Your task to perform on an android device: Show the shopping cart on newegg.com. Add "razer huntsman" to the cart on newegg.com Image 0: 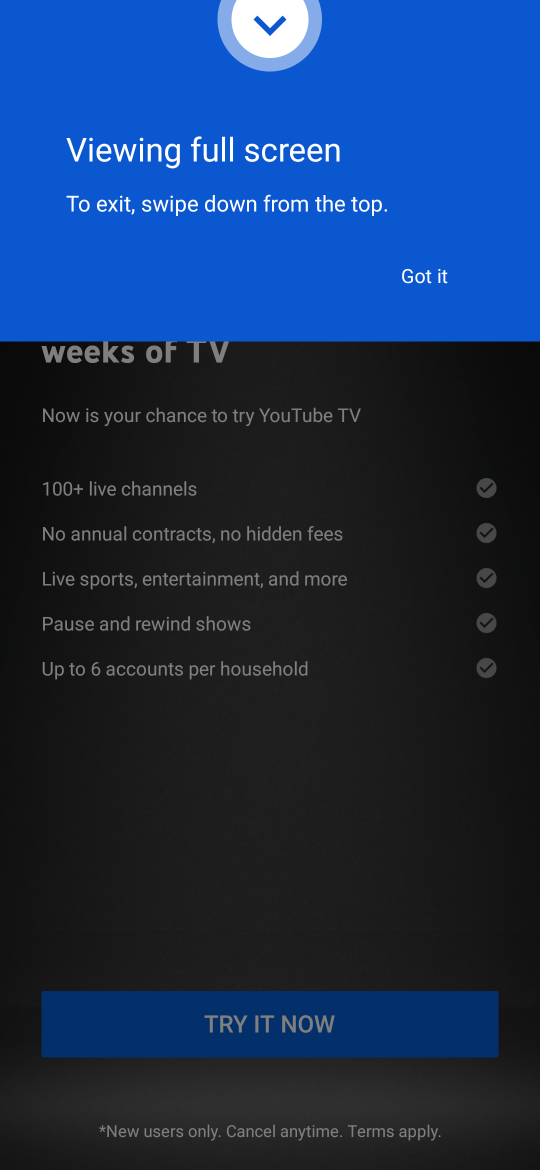
Step 0: click (427, 269)
Your task to perform on an android device: Show the shopping cart on newegg.com. Add "razer huntsman" to the cart on newegg.com Image 1: 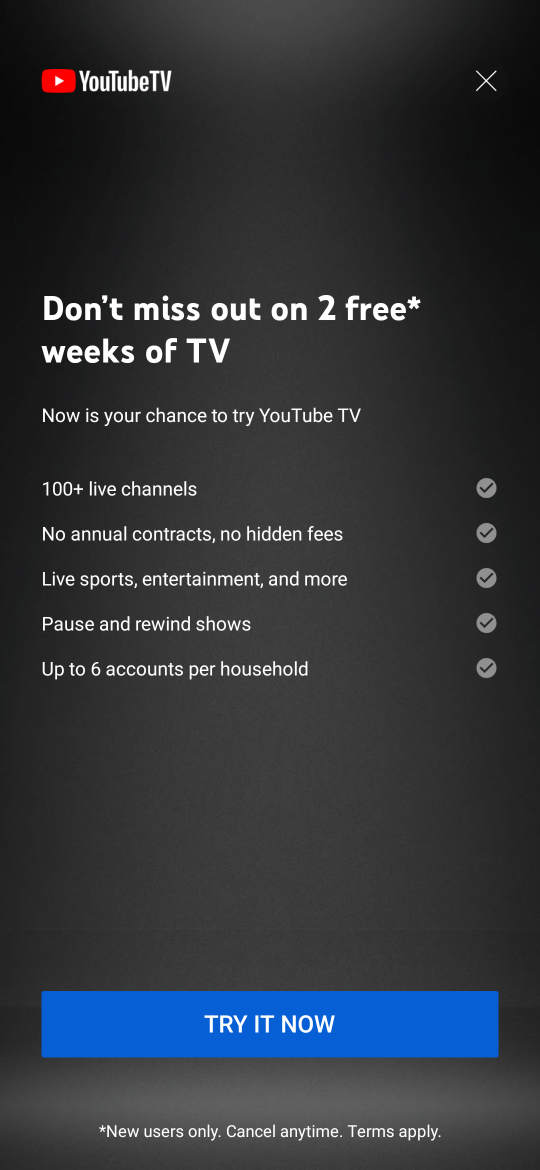
Step 1: click (488, 79)
Your task to perform on an android device: Show the shopping cart on newegg.com. Add "razer huntsman" to the cart on newegg.com Image 2: 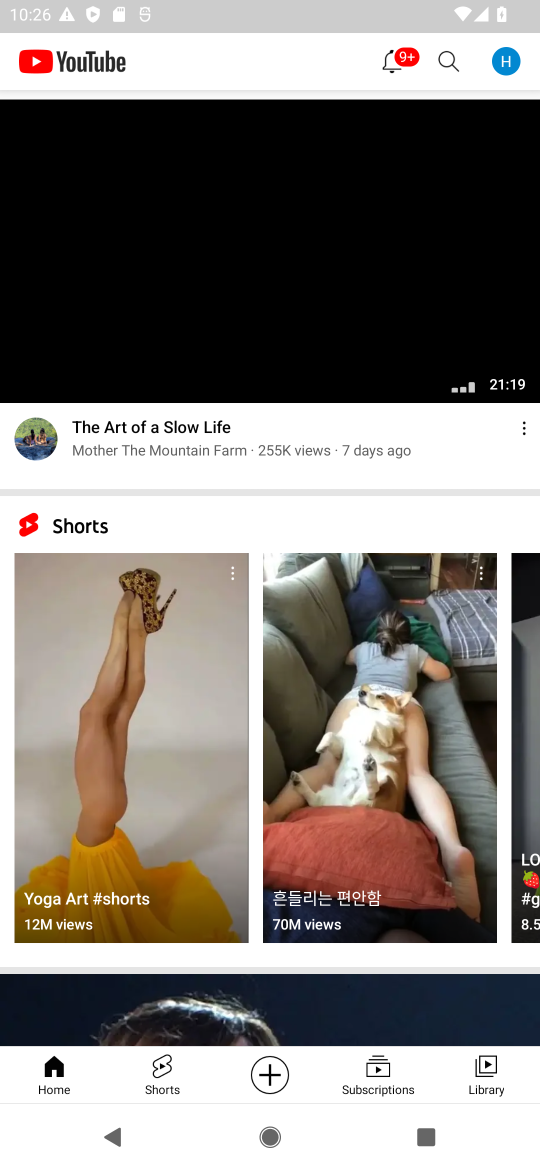
Step 2: press home button
Your task to perform on an android device: Show the shopping cart on newegg.com. Add "razer huntsman" to the cart on newegg.com Image 3: 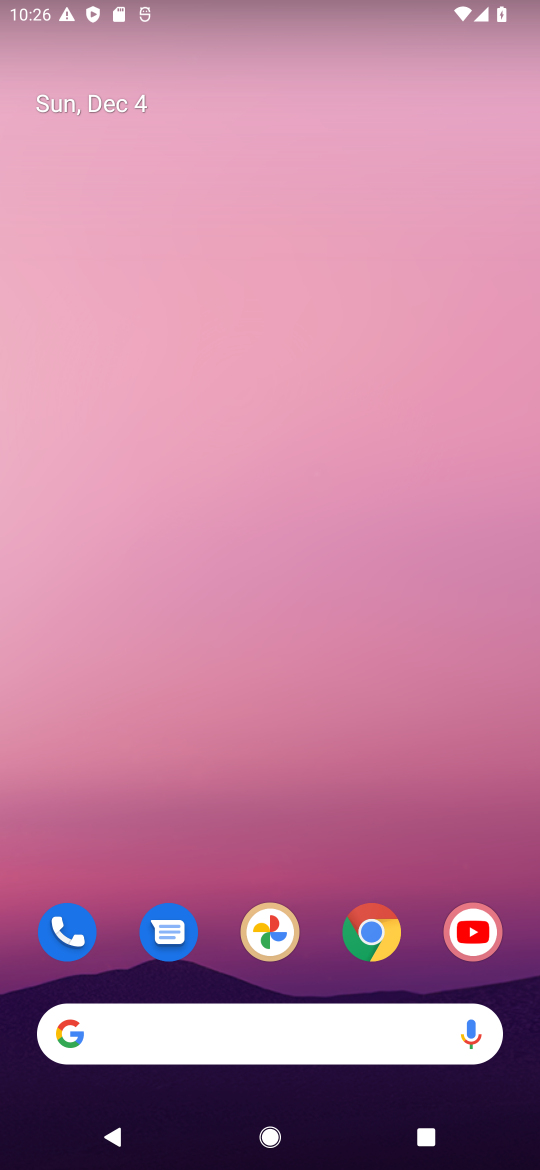
Step 3: click (367, 932)
Your task to perform on an android device: Show the shopping cart on newegg.com. Add "razer huntsman" to the cart on newegg.com Image 4: 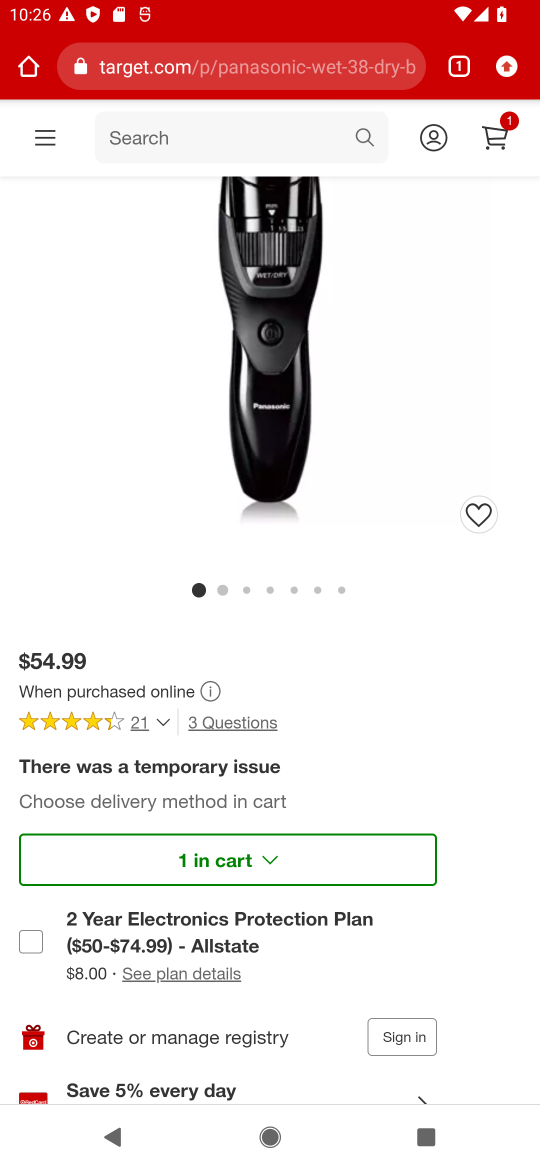
Step 4: click (295, 59)
Your task to perform on an android device: Show the shopping cart on newegg.com. Add "razer huntsman" to the cart on newegg.com Image 5: 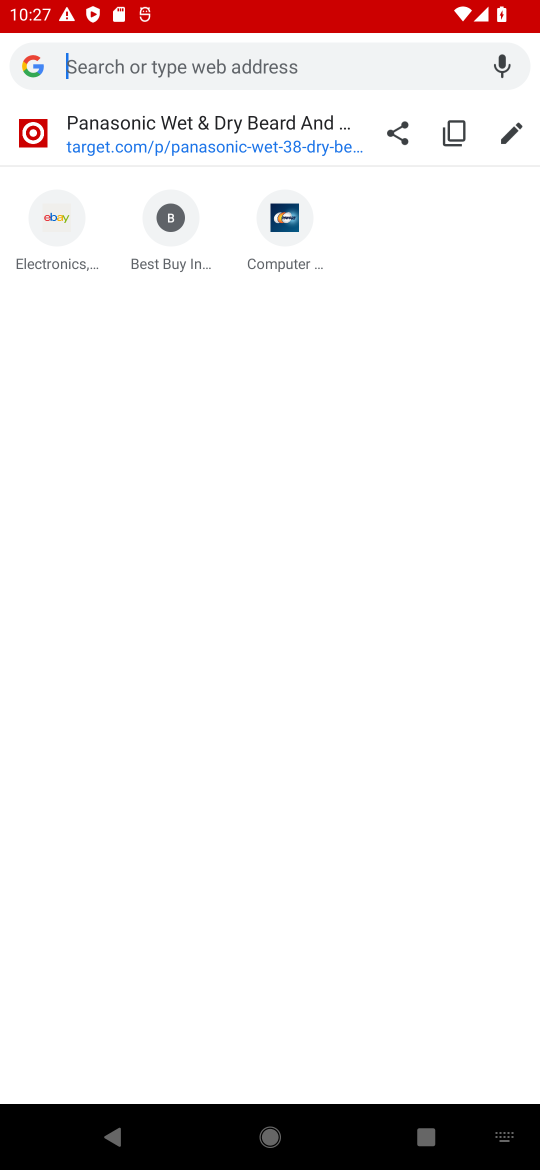
Step 5: type "newegg"
Your task to perform on an android device: Show the shopping cart on newegg.com. Add "razer huntsman" to the cart on newegg.com Image 6: 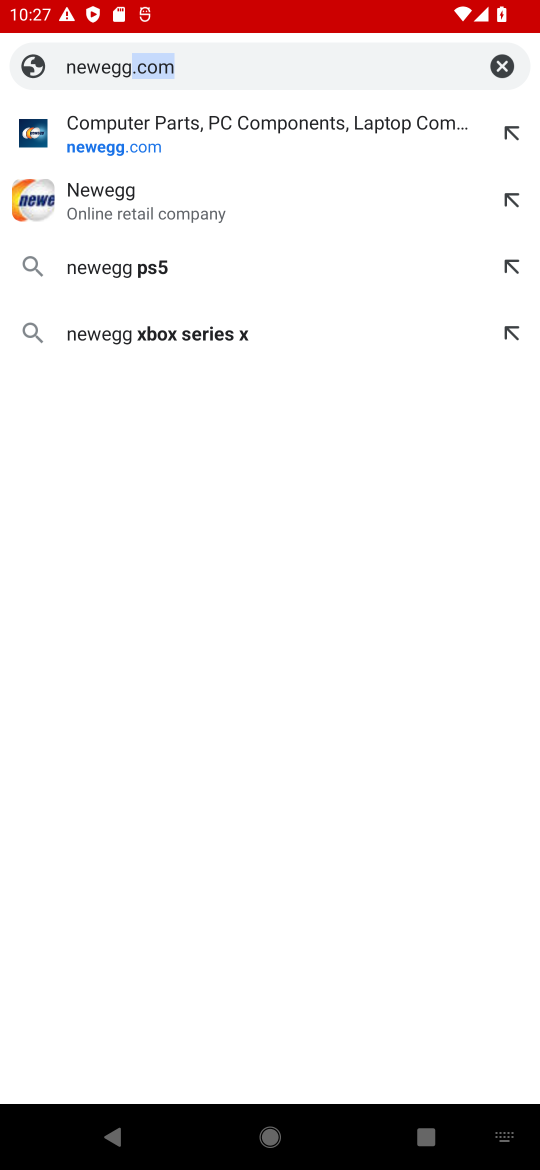
Step 6: click (137, 207)
Your task to perform on an android device: Show the shopping cart on newegg.com. Add "razer huntsman" to the cart on newegg.com Image 7: 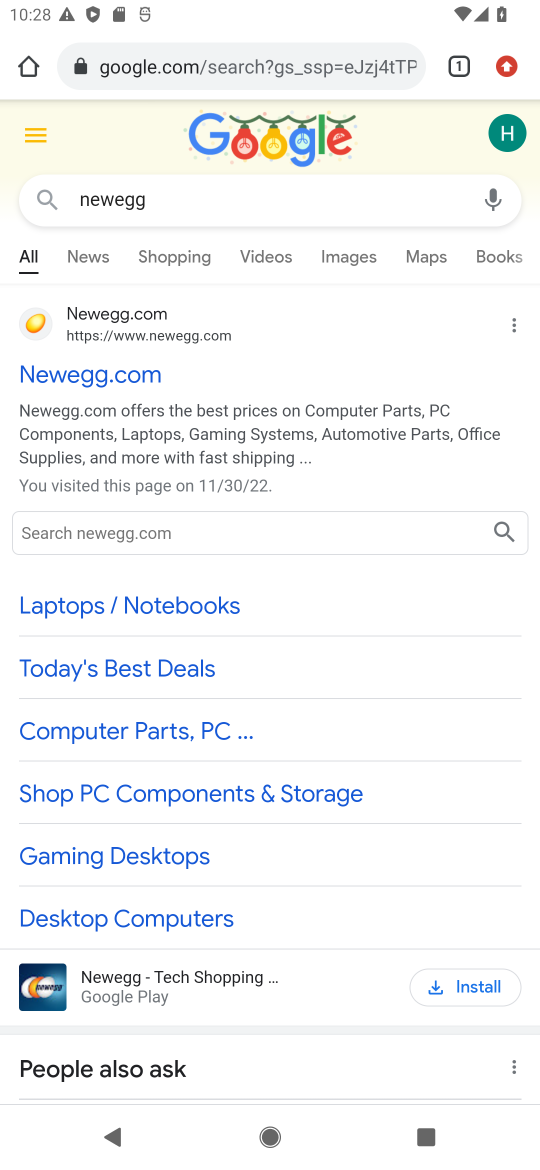
Step 7: click (100, 375)
Your task to perform on an android device: Show the shopping cart on newegg.com. Add "razer huntsman" to the cart on newegg.com Image 8: 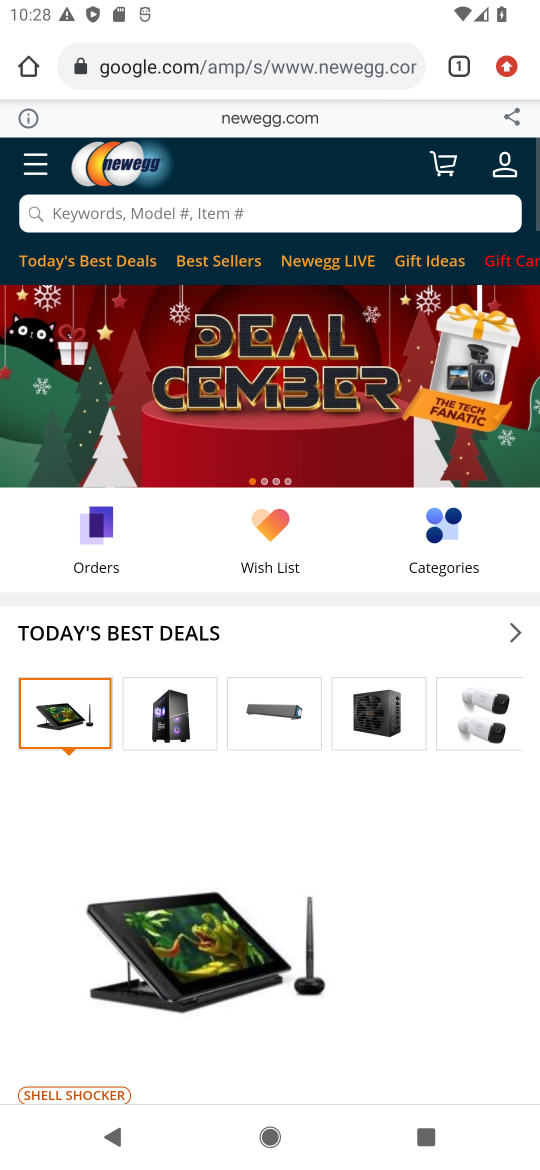
Step 8: click (301, 212)
Your task to perform on an android device: Show the shopping cart on newegg.com. Add "razer huntsman" to the cart on newegg.com Image 9: 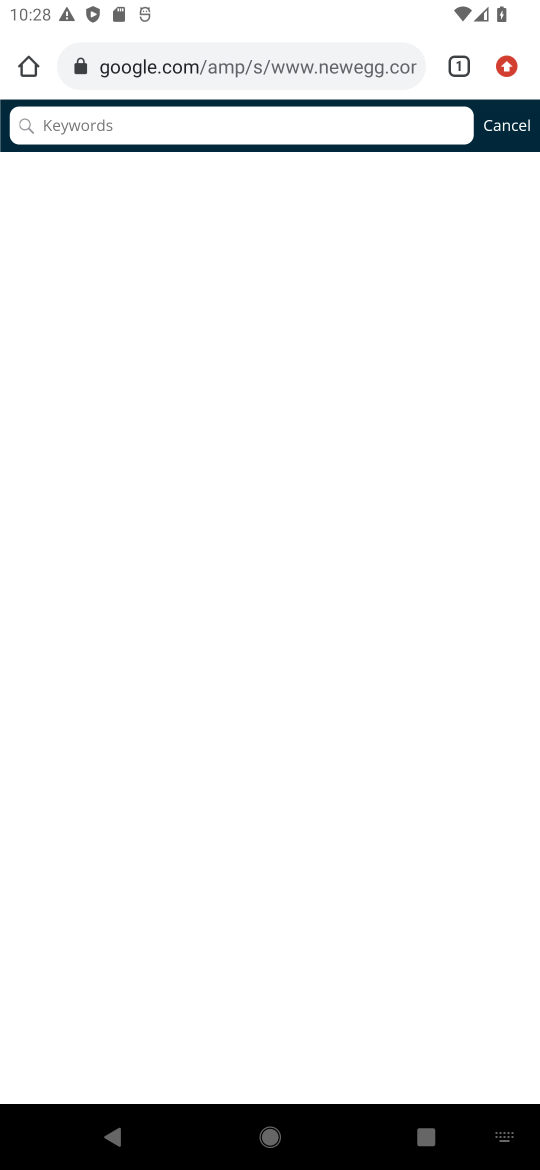
Step 9: type "razer huntsman"
Your task to perform on an android device: Show the shopping cart on newegg.com. Add "razer huntsman" to the cart on newegg.com Image 10: 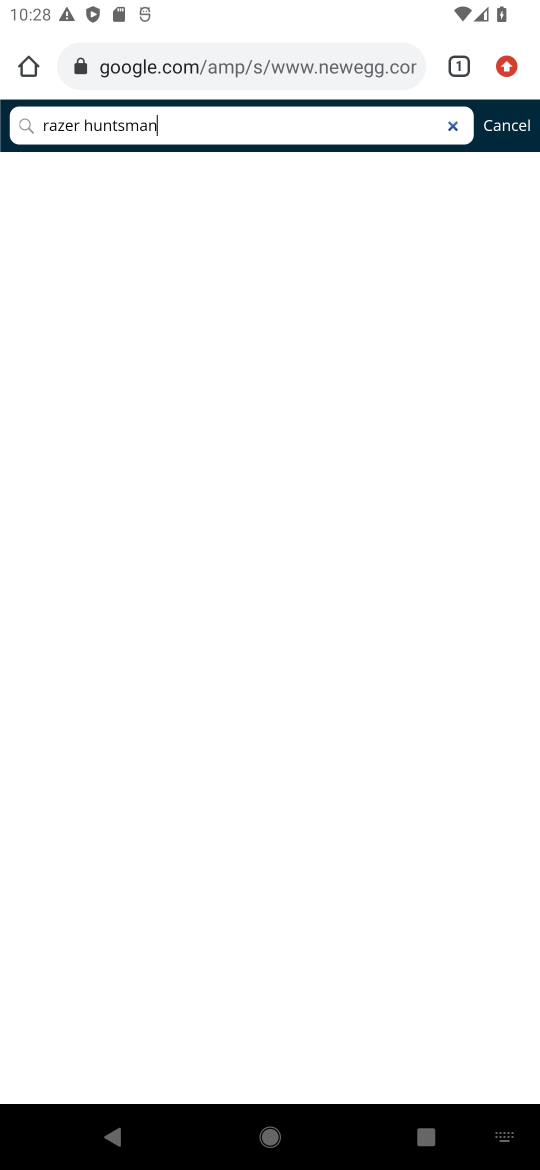
Step 10: task complete